Your task to perform on an android device: allow notifications from all sites in the chrome app Image 0: 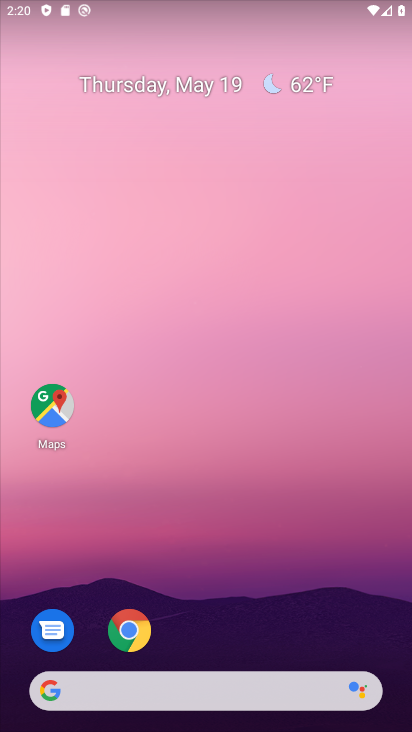
Step 0: drag from (329, 591) to (333, 213)
Your task to perform on an android device: allow notifications from all sites in the chrome app Image 1: 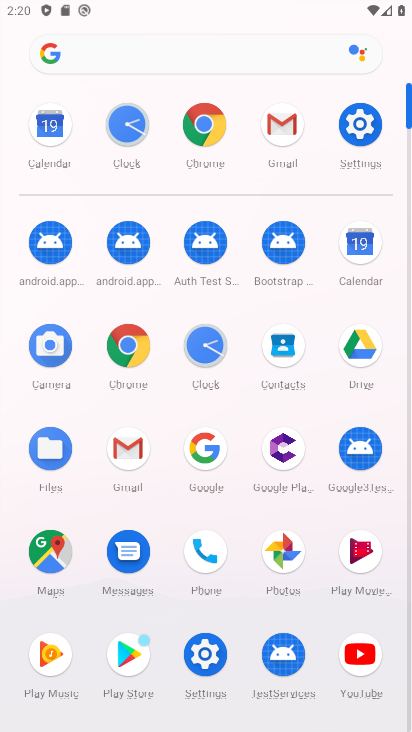
Step 1: click (124, 350)
Your task to perform on an android device: allow notifications from all sites in the chrome app Image 2: 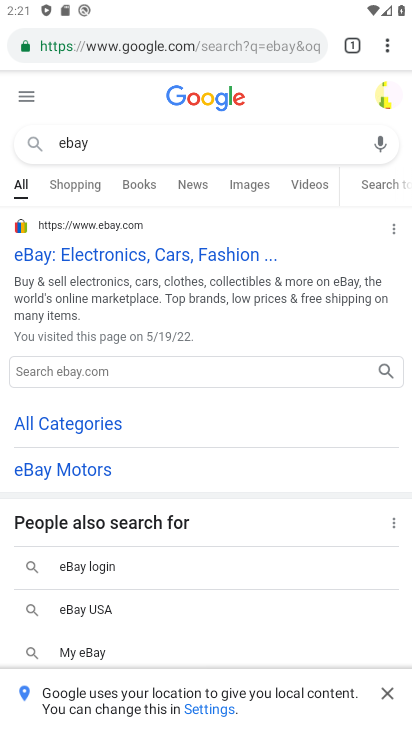
Step 2: drag from (386, 31) to (271, 558)
Your task to perform on an android device: allow notifications from all sites in the chrome app Image 3: 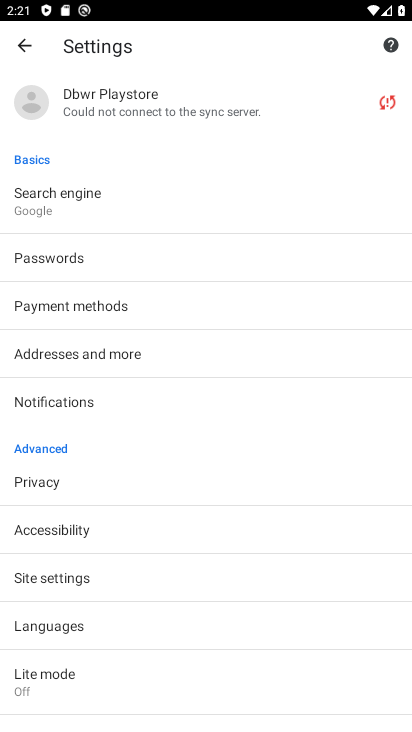
Step 3: click (107, 579)
Your task to perform on an android device: allow notifications from all sites in the chrome app Image 4: 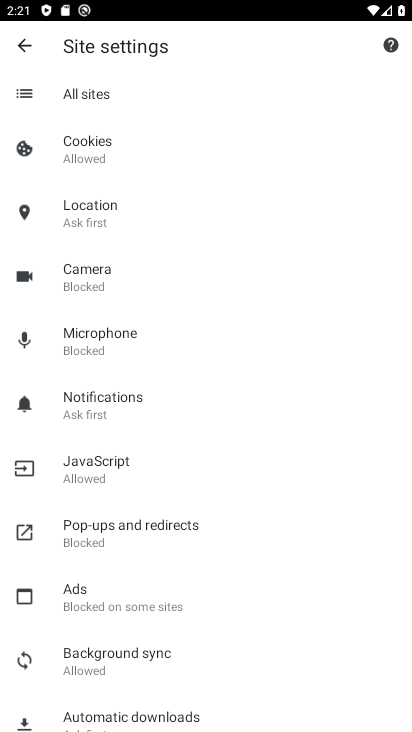
Step 4: click (111, 86)
Your task to perform on an android device: allow notifications from all sites in the chrome app Image 5: 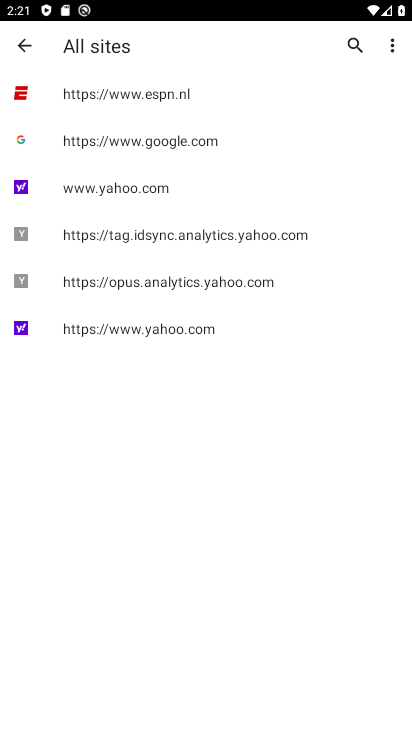
Step 5: task complete